Your task to perform on an android device: Open the Play Movies app and select the watchlist tab. Image 0: 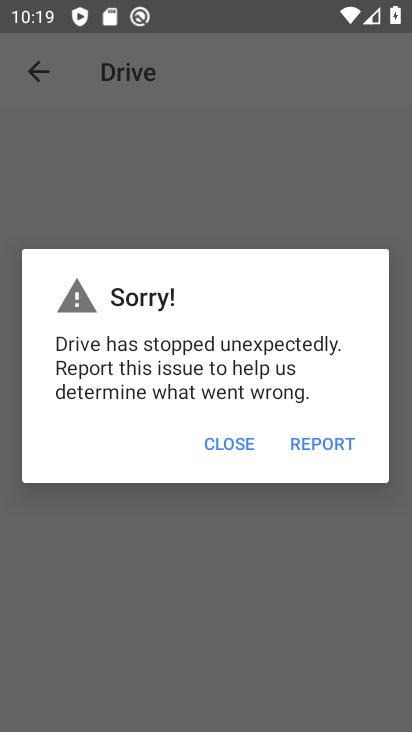
Step 0: press home button
Your task to perform on an android device: Open the Play Movies app and select the watchlist tab. Image 1: 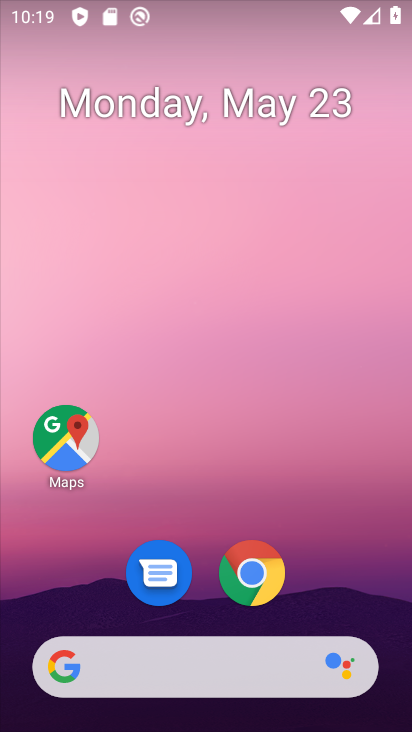
Step 1: drag from (302, 547) to (133, 12)
Your task to perform on an android device: Open the Play Movies app and select the watchlist tab. Image 2: 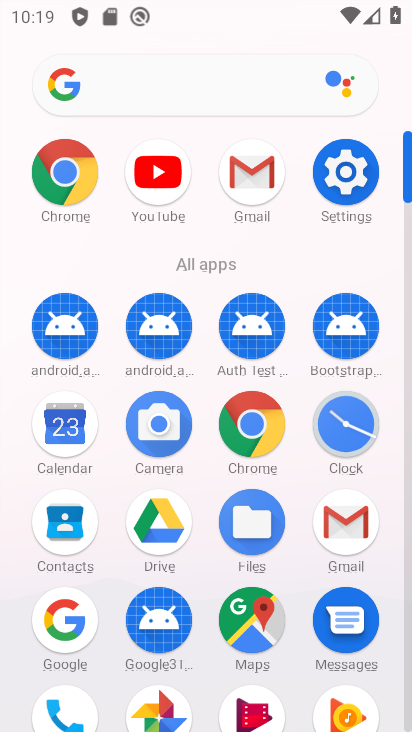
Step 2: drag from (12, 536) to (22, 205)
Your task to perform on an android device: Open the Play Movies app and select the watchlist tab. Image 3: 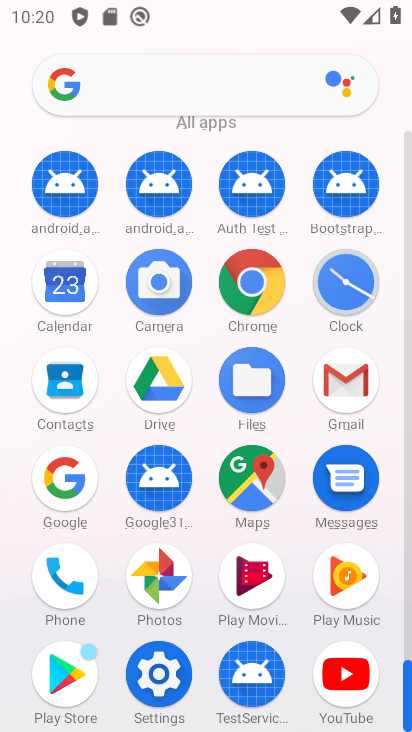
Step 3: drag from (1, 602) to (15, 260)
Your task to perform on an android device: Open the Play Movies app and select the watchlist tab. Image 4: 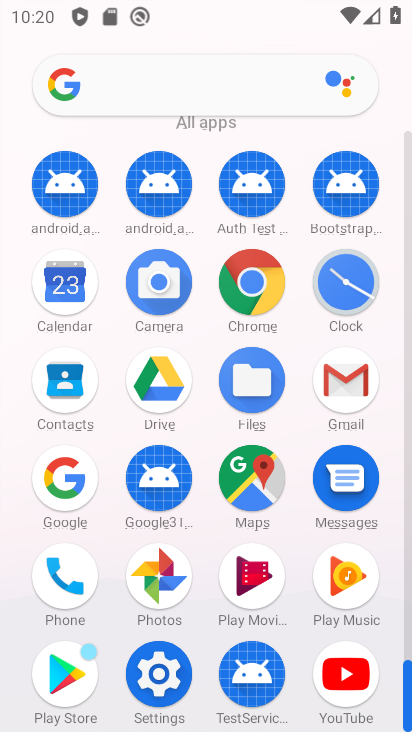
Step 4: drag from (12, 630) to (34, 269)
Your task to perform on an android device: Open the Play Movies app and select the watchlist tab. Image 5: 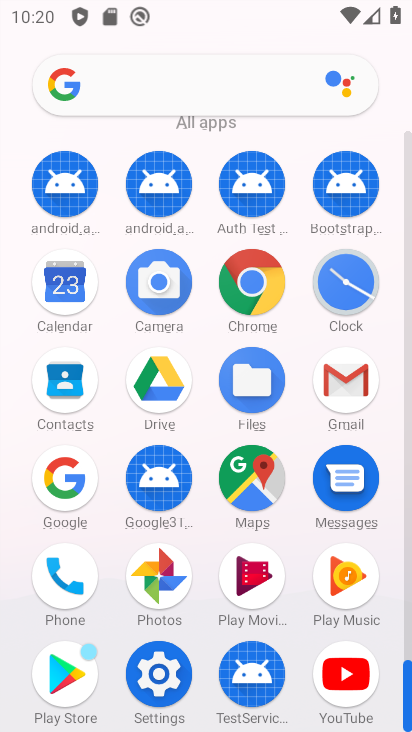
Step 5: click (258, 575)
Your task to perform on an android device: Open the Play Movies app and select the watchlist tab. Image 6: 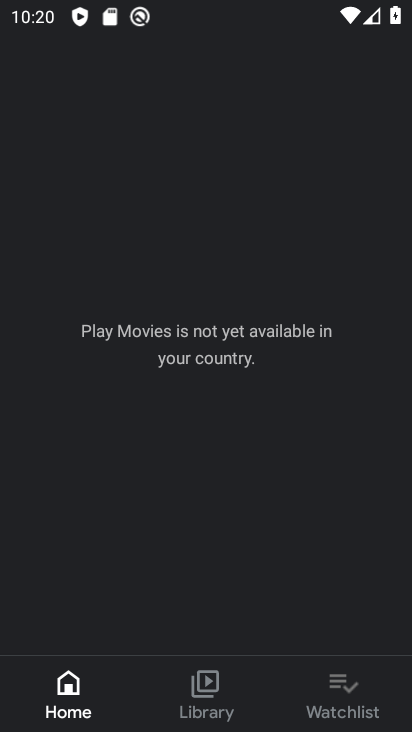
Step 6: click (342, 692)
Your task to perform on an android device: Open the Play Movies app and select the watchlist tab. Image 7: 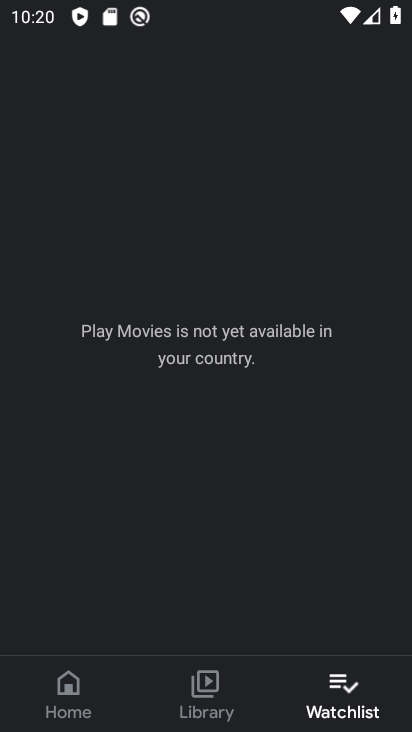
Step 7: task complete